Your task to perform on an android device: check data usage Image 0: 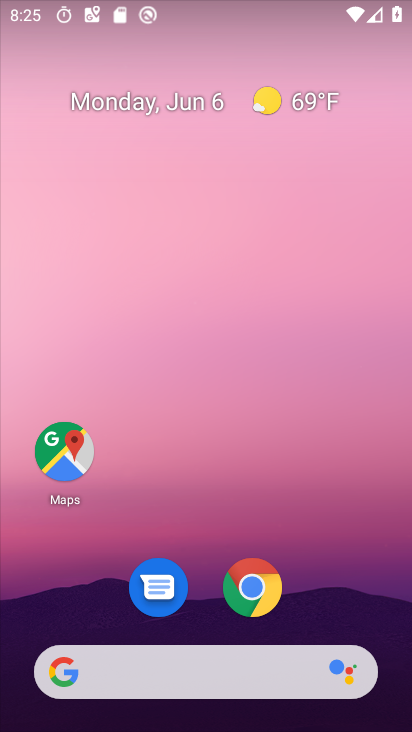
Step 0: press home button
Your task to perform on an android device: check data usage Image 1: 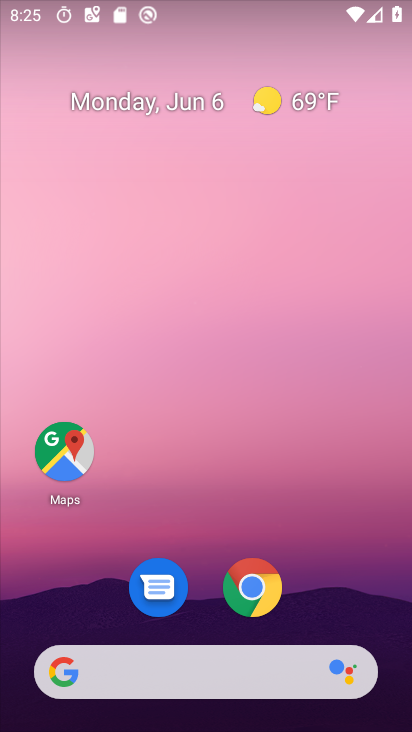
Step 1: drag from (377, 581) to (343, 138)
Your task to perform on an android device: check data usage Image 2: 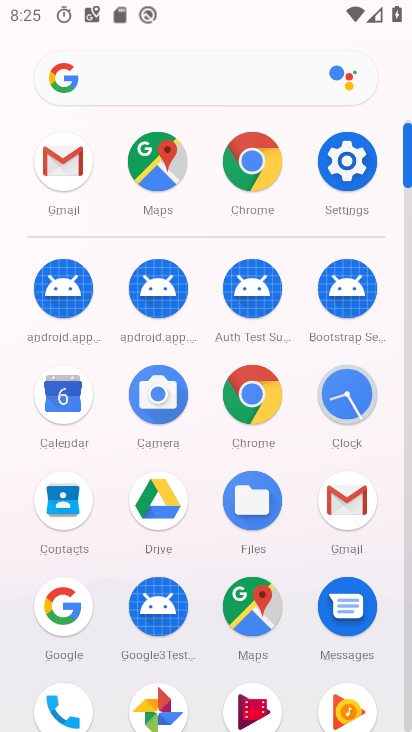
Step 2: click (343, 175)
Your task to perform on an android device: check data usage Image 3: 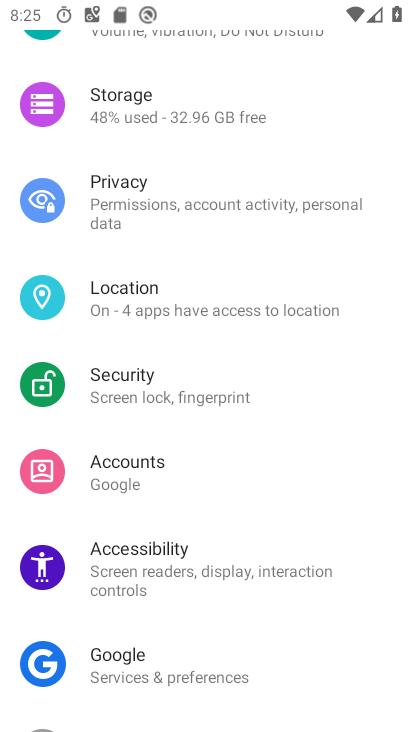
Step 3: drag from (316, 159) to (279, 636)
Your task to perform on an android device: check data usage Image 4: 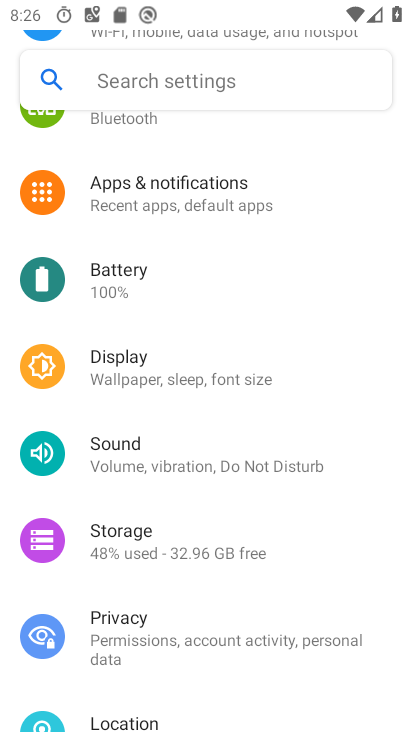
Step 4: drag from (254, 245) to (227, 683)
Your task to perform on an android device: check data usage Image 5: 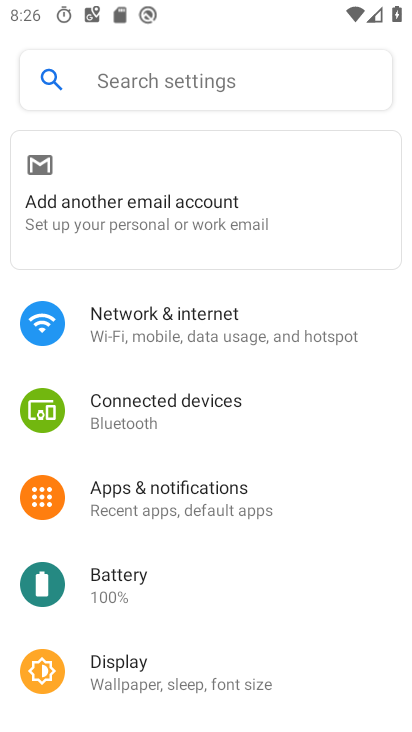
Step 5: click (248, 340)
Your task to perform on an android device: check data usage Image 6: 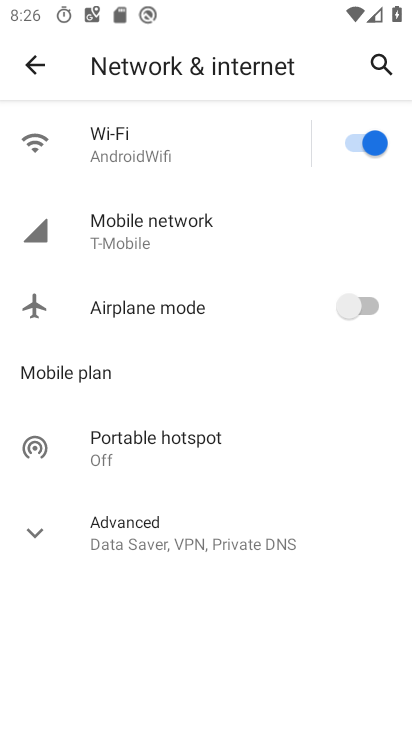
Step 6: click (158, 224)
Your task to perform on an android device: check data usage Image 7: 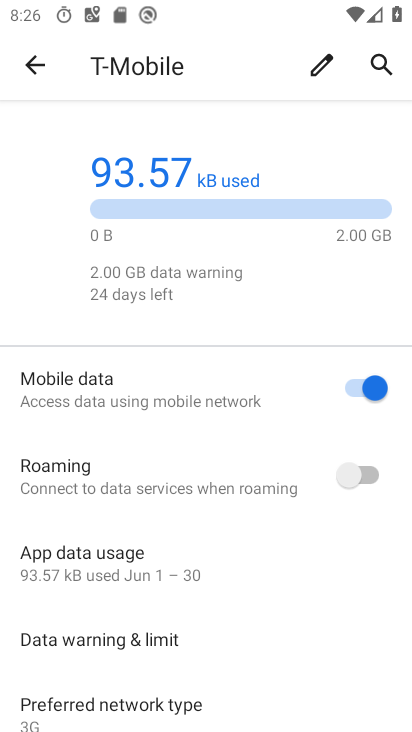
Step 7: task complete